Your task to perform on an android device: install app "Booking.com: Hotels and more" Image 0: 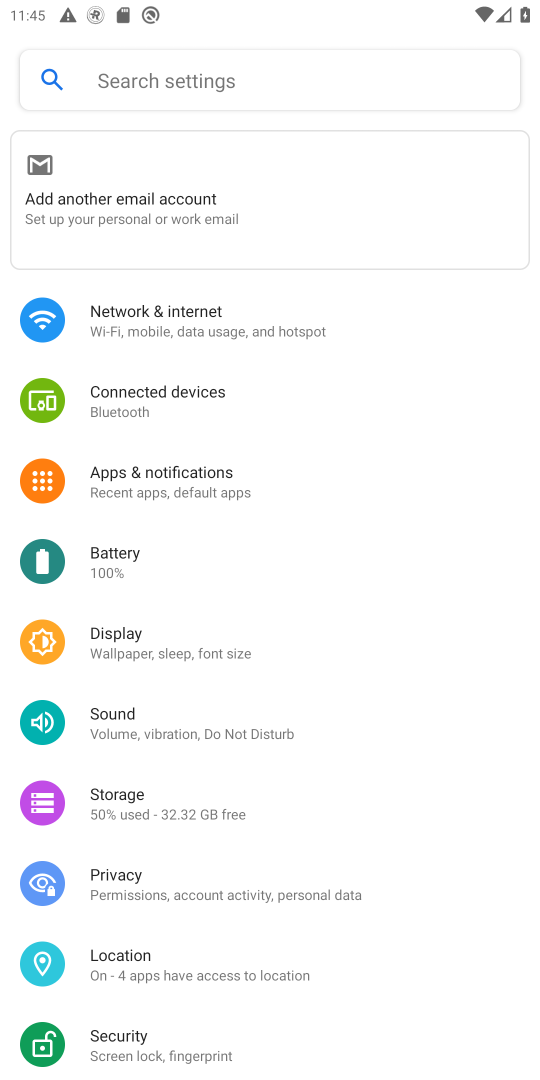
Step 0: press home button
Your task to perform on an android device: install app "Booking.com: Hotels and more" Image 1: 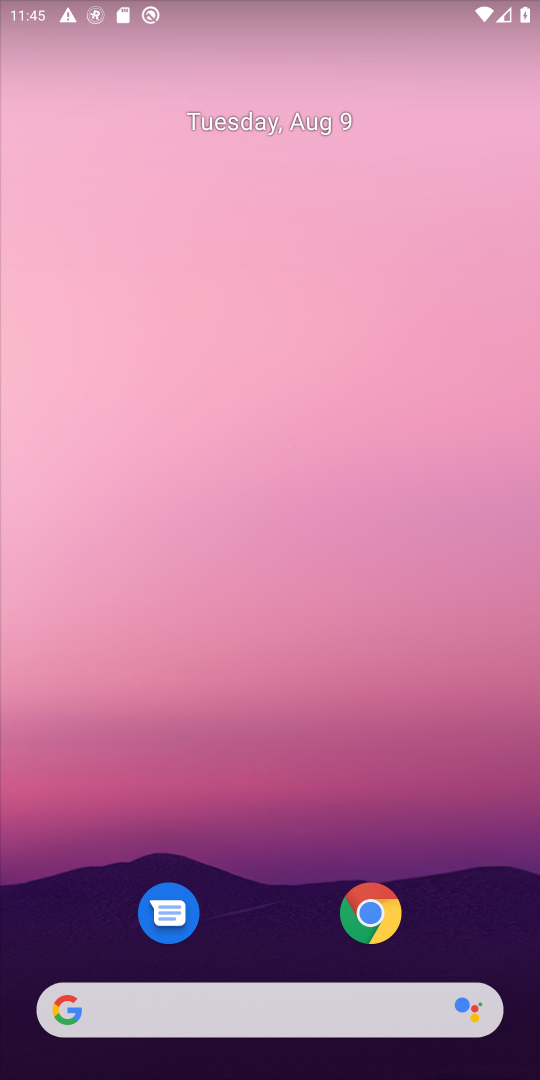
Step 1: drag from (228, 968) to (254, 295)
Your task to perform on an android device: install app "Booking.com: Hotels and more" Image 2: 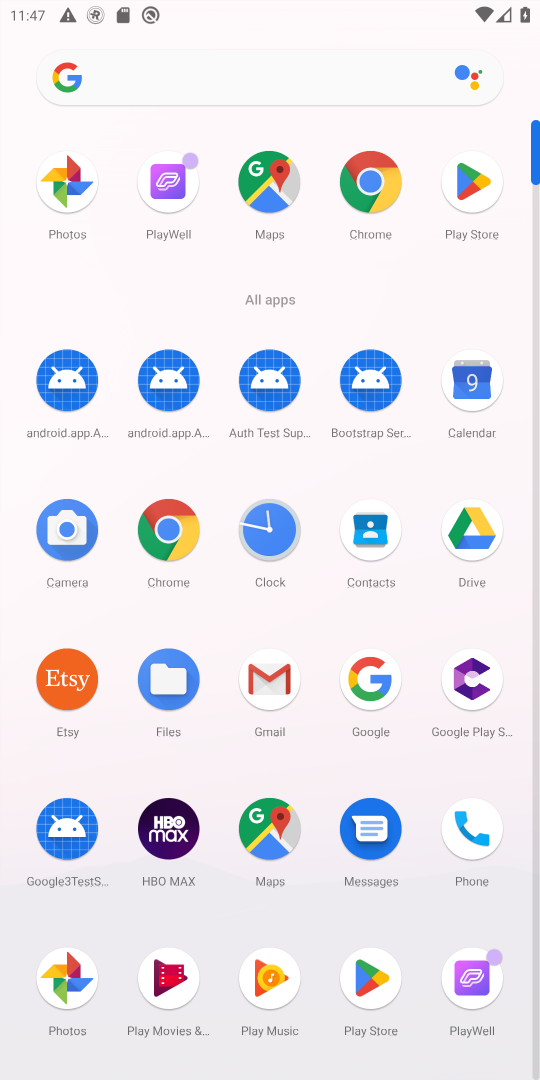
Step 2: click (480, 164)
Your task to perform on an android device: install app "Booking.com: Hotels and more" Image 3: 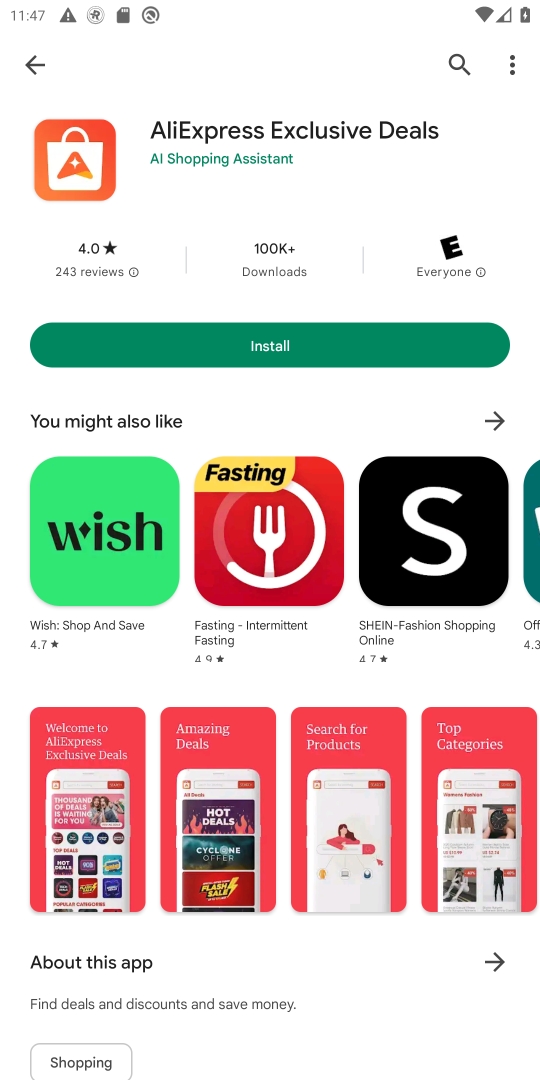
Step 3: click (39, 57)
Your task to perform on an android device: install app "Booking.com: Hotels and more" Image 4: 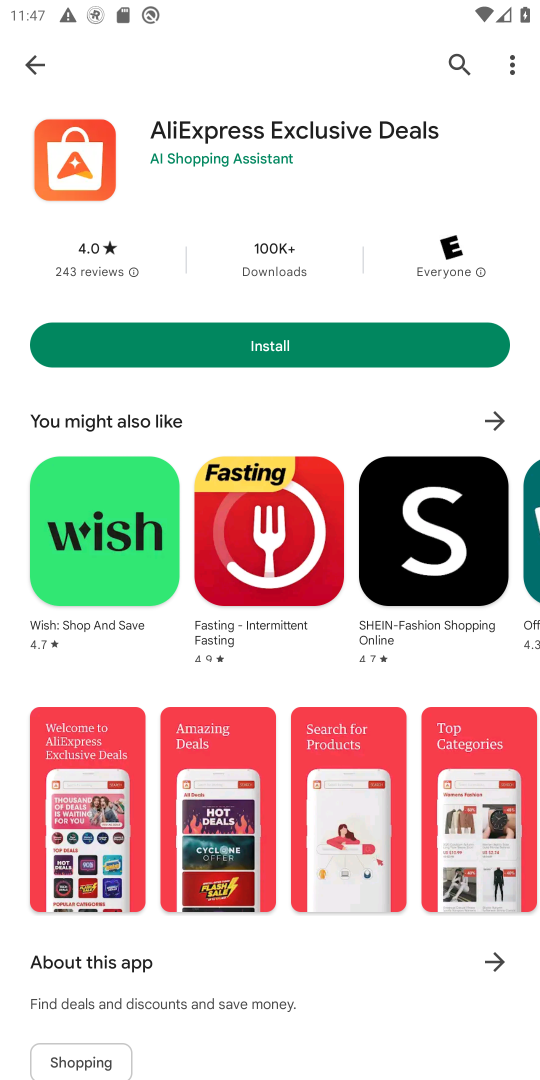
Step 4: click (39, 57)
Your task to perform on an android device: install app "Booking.com: Hotels and more" Image 5: 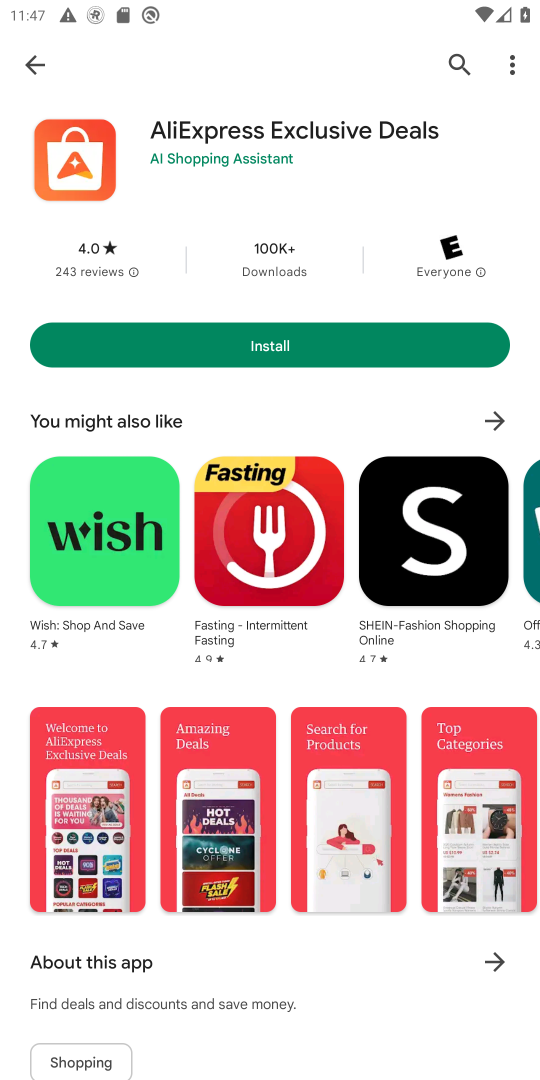
Step 5: click (39, 57)
Your task to perform on an android device: install app "Booking.com: Hotels and more" Image 6: 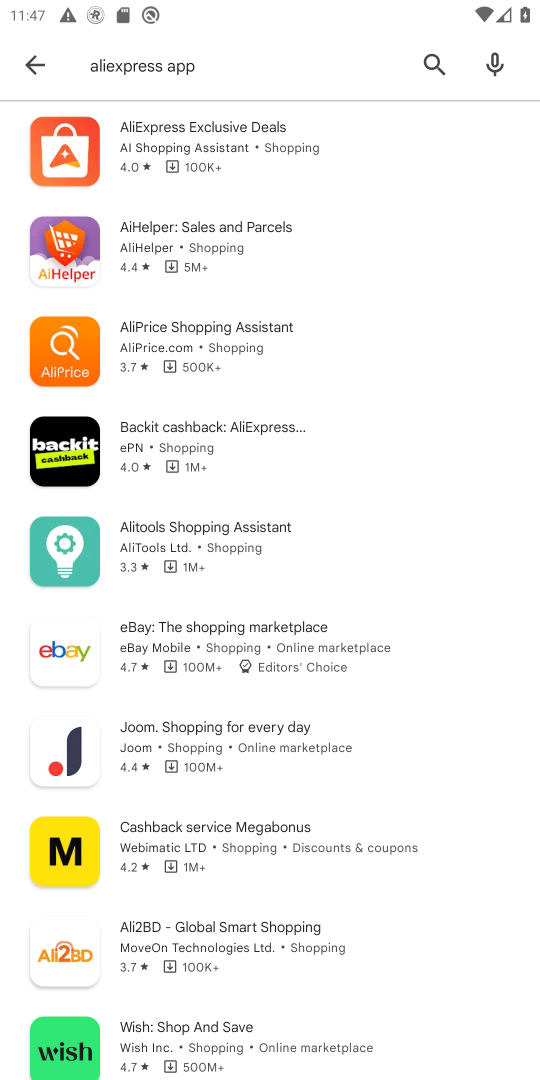
Step 6: click (39, 57)
Your task to perform on an android device: install app "Booking.com: Hotels and more" Image 7: 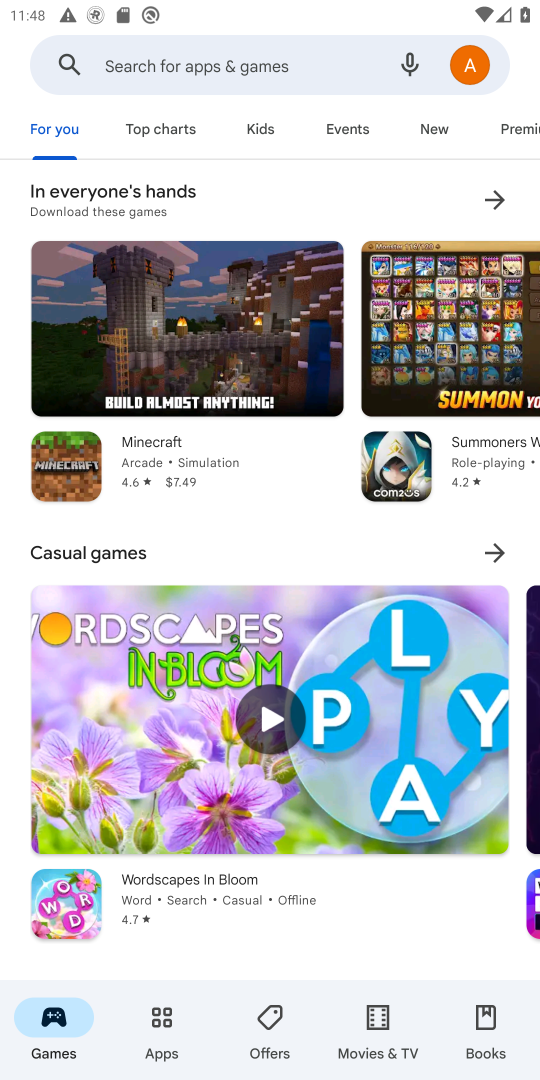
Step 7: click (309, 69)
Your task to perform on an android device: install app "Booking.com: Hotels and more" Image 8: 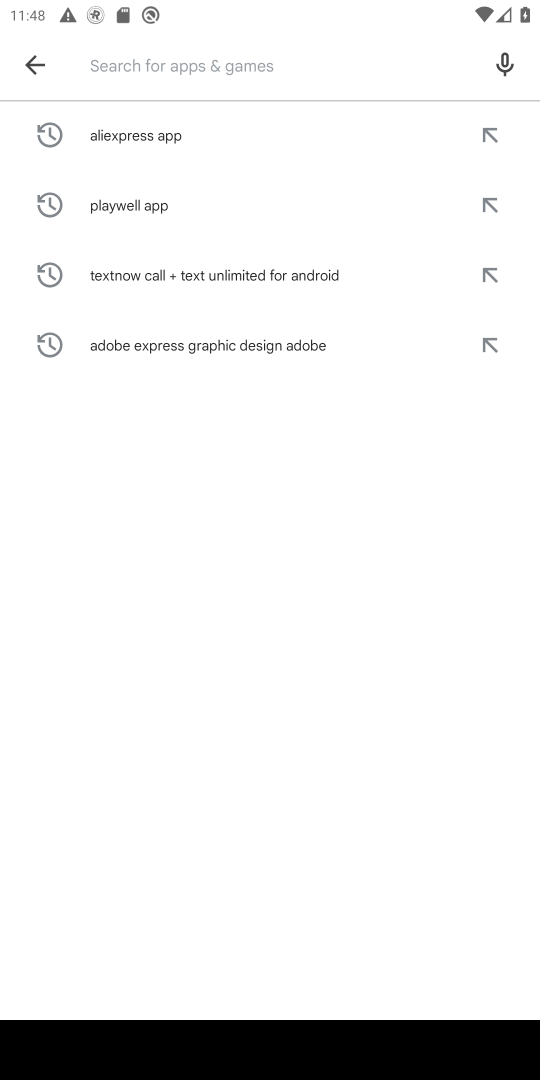
Step 8: type "Booking.com: Hotels and more "
Your task to perform on an android device: install app "Booking.com: Hotels and more" Image 9: 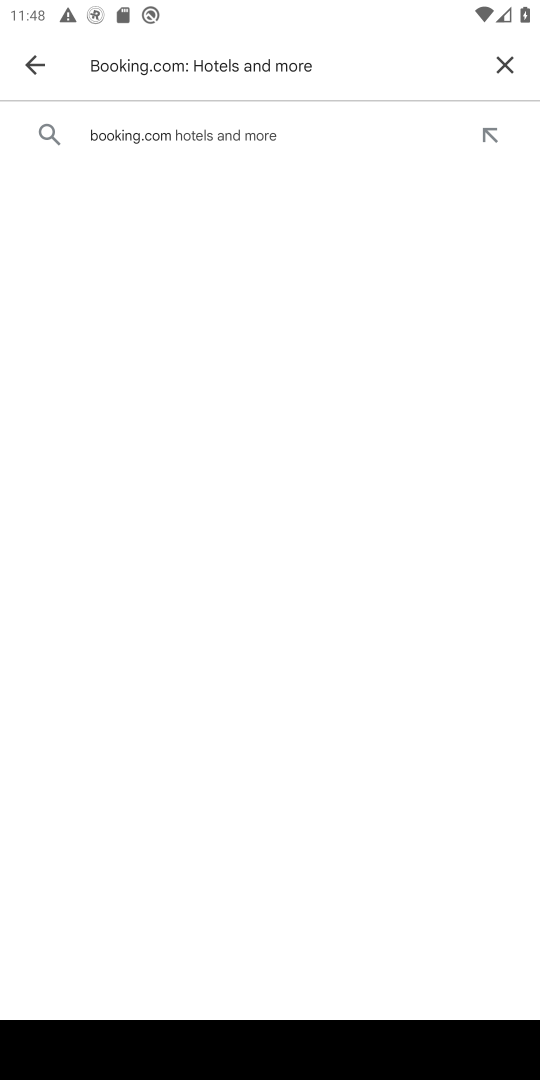
Step 9: click (212, 134)
Your task to perform on an android device: install app "Booking.com: Hotels and more" Image 10: 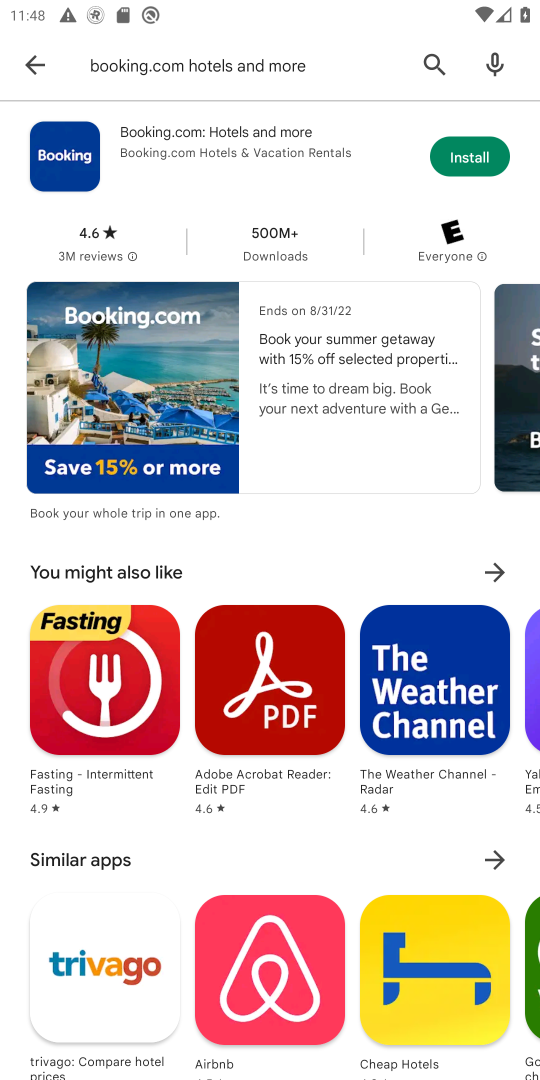
Step 10: click (506, 163)
Your task to perform on an android device: install app "Booking.com: Hotels and more" Image 11: 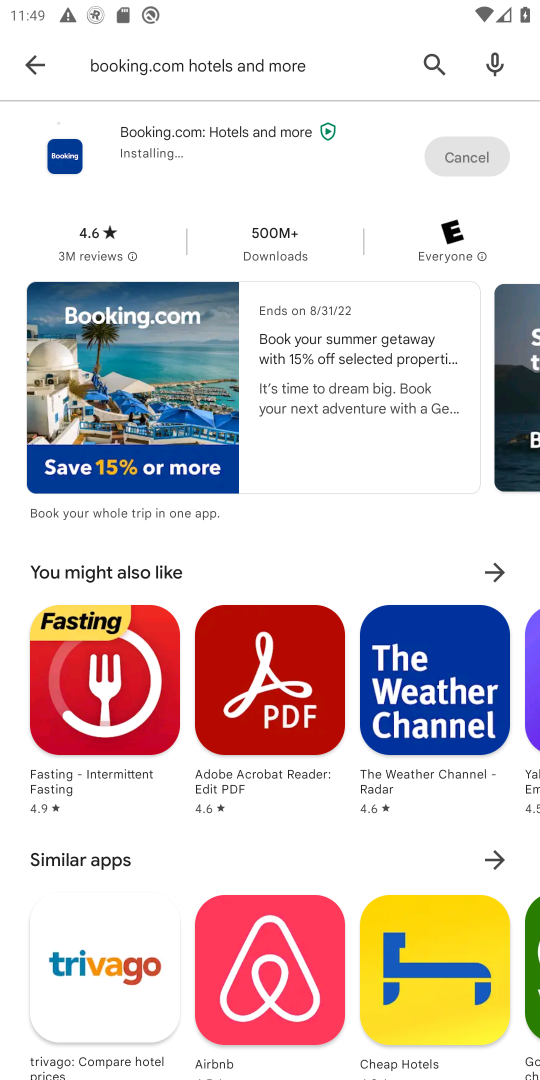
Step 11: task complete